Your task to perform on an android device: toggle notification dots Image 0: 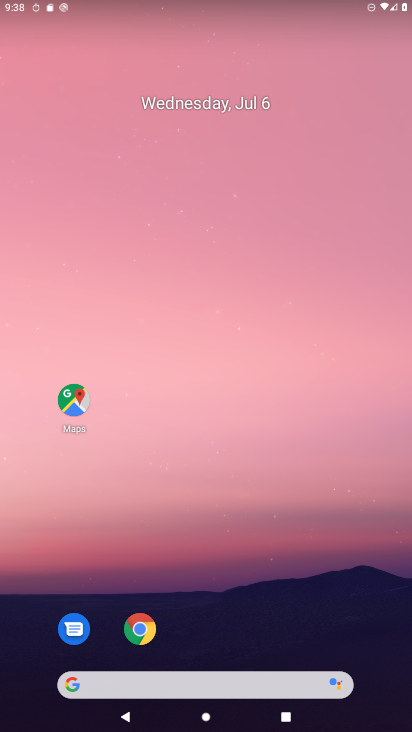
Step 0: drag from (237, 727) to (237, 159)
Your task to perform on an android device: toggle notification dots Image 1: 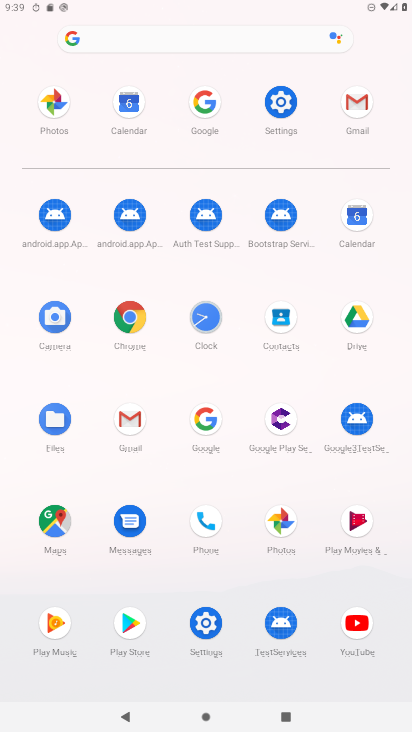
Step 1: click (283, 103)
Your task to perform on an android device: toggle notification dots Image 2: 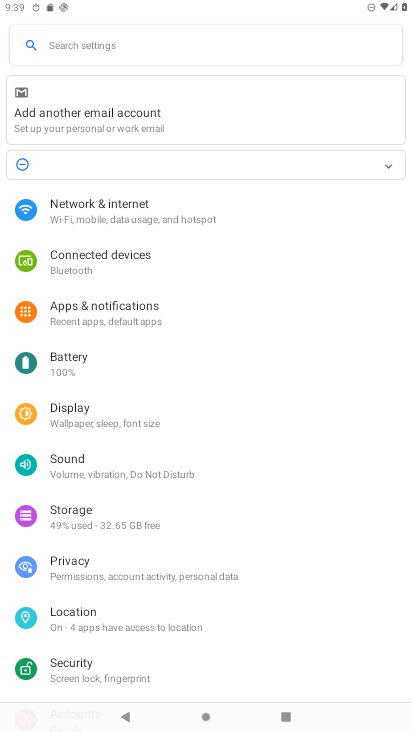
Step 2: click (108, 307)
Your task to perform on an android device: toggle notification dots Image 3: 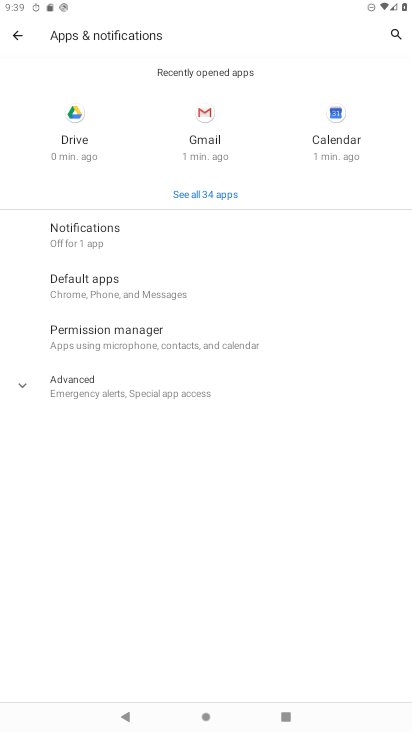
Step 3: click (83, 231)
Your task to perform on an android device: toggle notification dots Image 4: 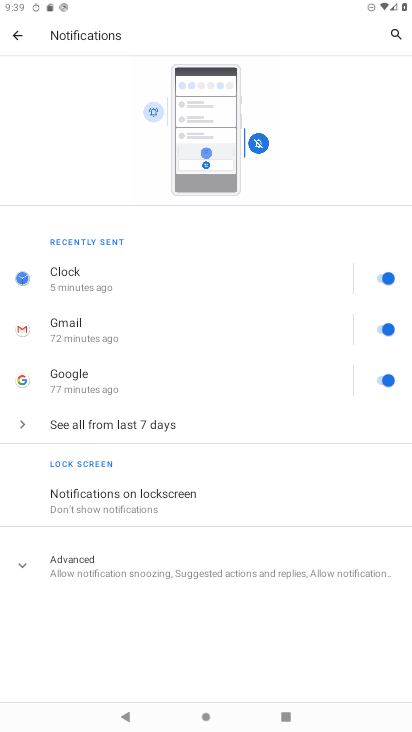
Step 4: click (65, 566)
Your task to perform on an android device: toggle notification dots Image 5: 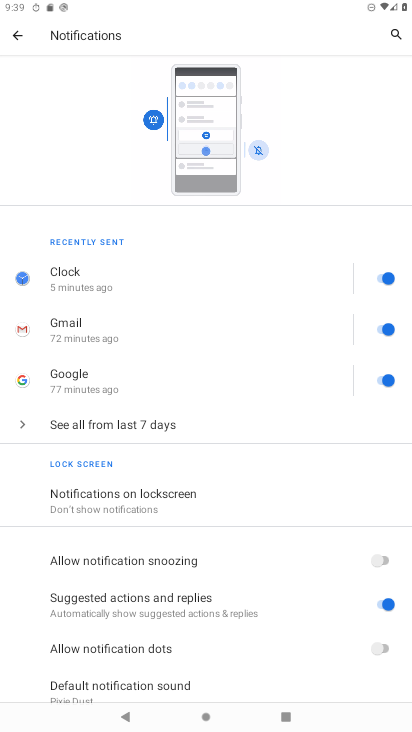
Step 5: click (387, 645)
Your task to perform on an android device: toggle notification dots Image 6: 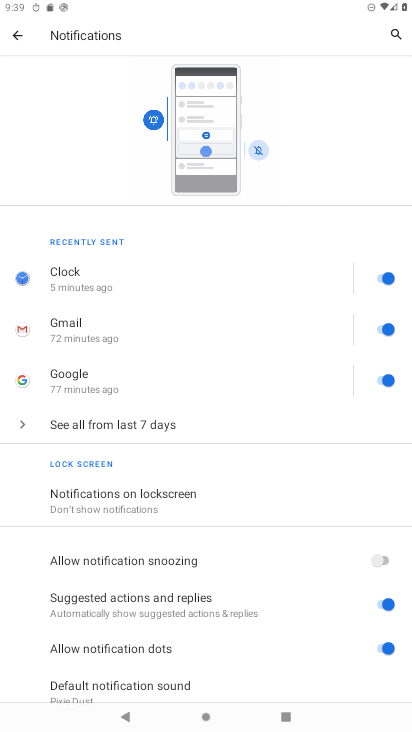
Step 6: task complete